Your task to perform on an android device: What's the weather today? Image 0: 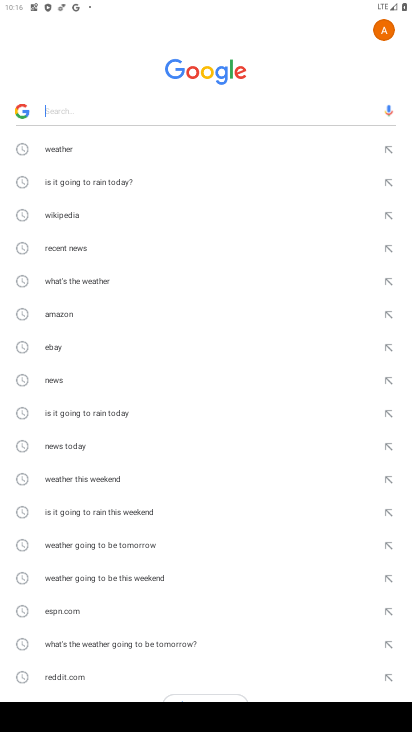
Step 0: press home button
Your task to perform on an android device: What's the weather today? Image 1: 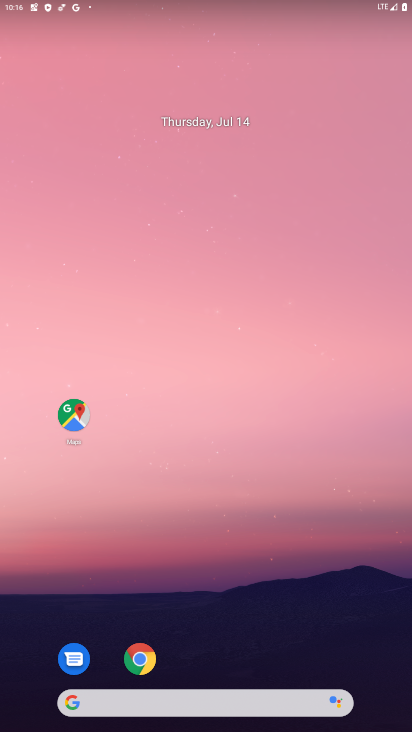
Step 1: drag from (284, 643) to (289, 219)
Your task to perform on an android device: What's the weather today? Image 2: 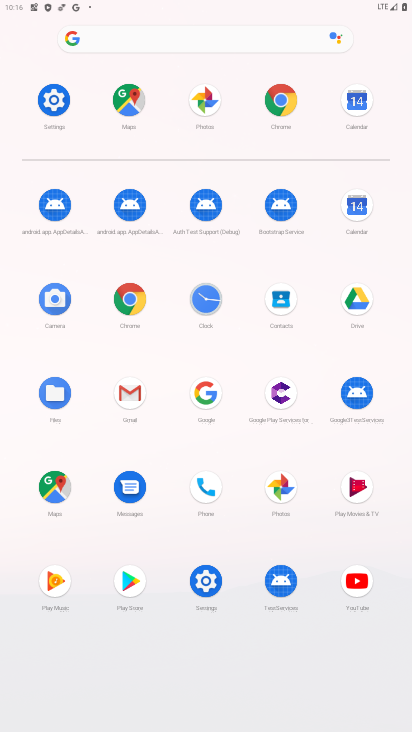
Step 2: click (131, 299)
Your task to perform on an android device: What's the weather today? Image 3: 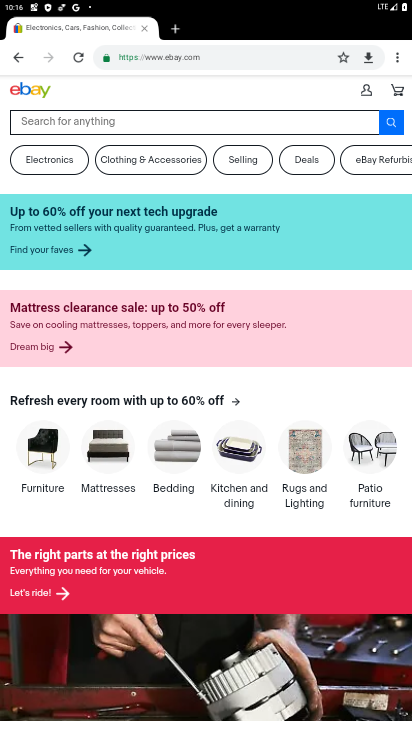
Step 3: click (287, 66)
Your task to perform on an android device: What's the weather today? Image 4: 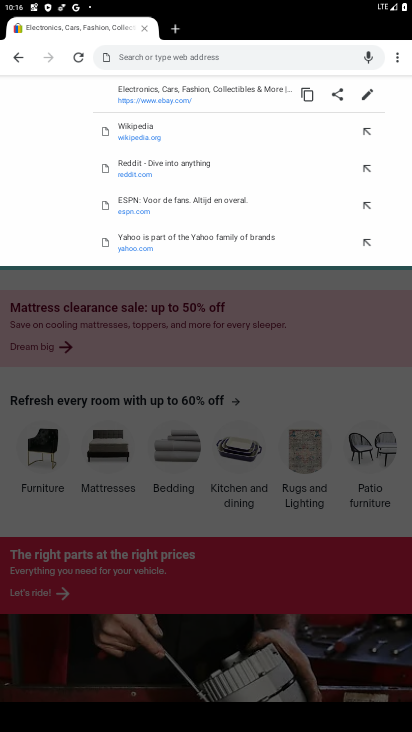
Step 4: type "weather"
Your task to perform on an android device: What's the weather today? Image 5: 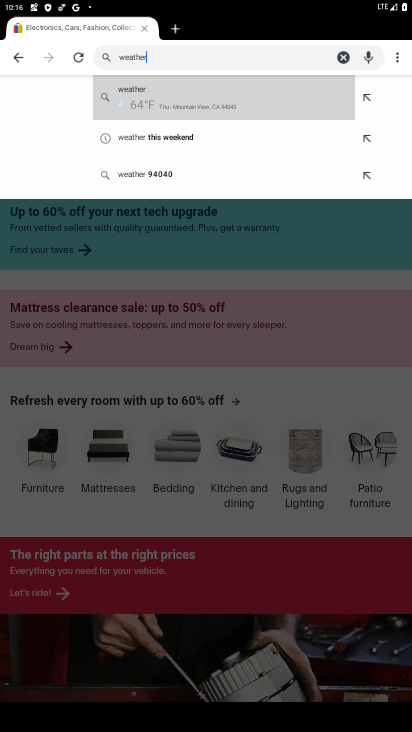
Step 5: click (254, 113)
Your task to perform on an android device: What's the weather today? Image 6: 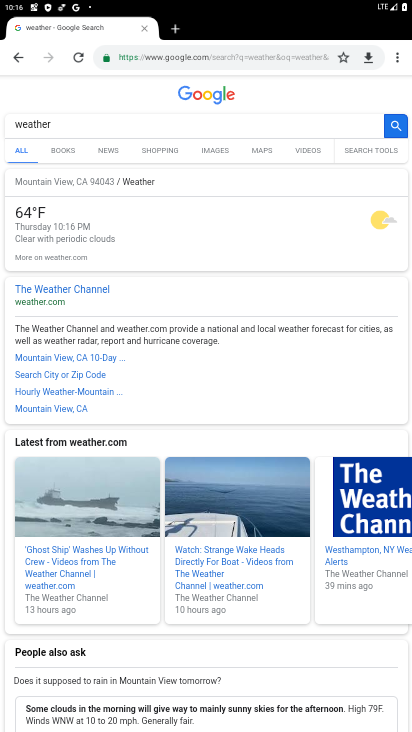
Step 6: task complete